Your task to perform on an android device: snooze an email in the gmail app Image 0: 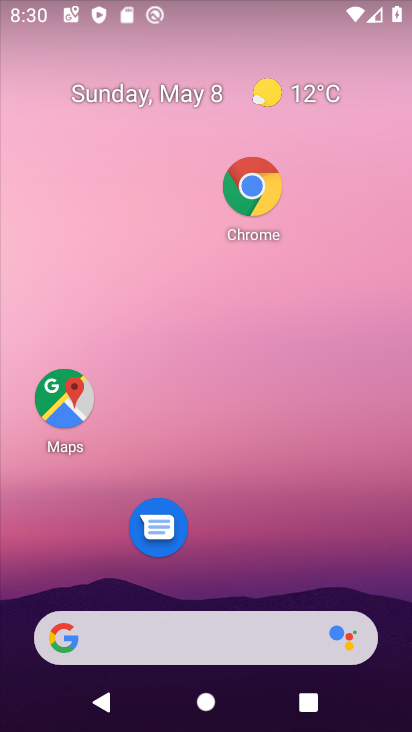
Step 0: drag from (247, 492) to (248, 265)
Your task to perform on an android device: snooze an email in the gmail app Image 1: 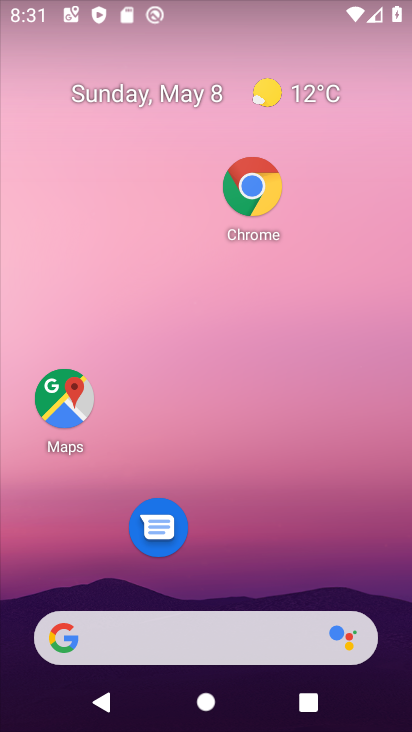
Step 1: drag from (251, 569) to (310, 272)
Your task to perform on an android device: snooze an email in the gmail app Image 2: 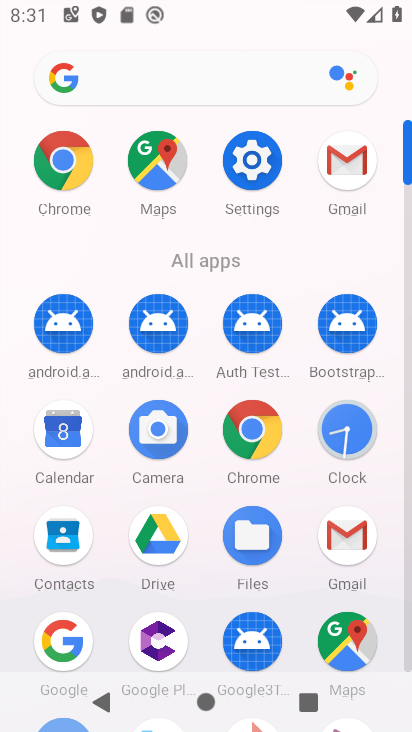
Step 2: click (338, 157)
Your task to perform on an android device: snooze an email in the gmail app Image 3: 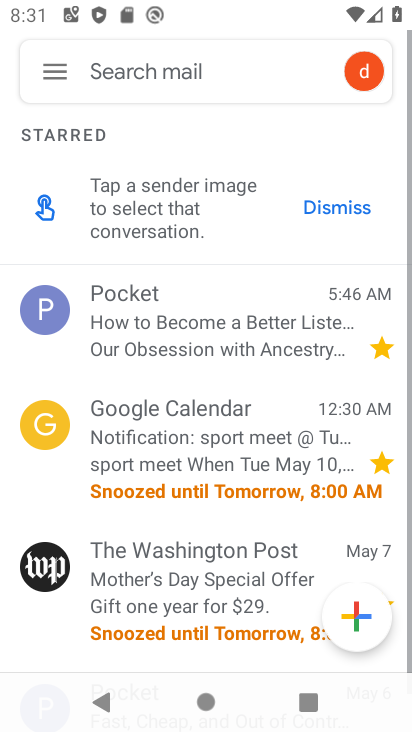
Step 3: click (54, 65)
Your task to perform on an android device: snooze an email in the gmail app Image 4: 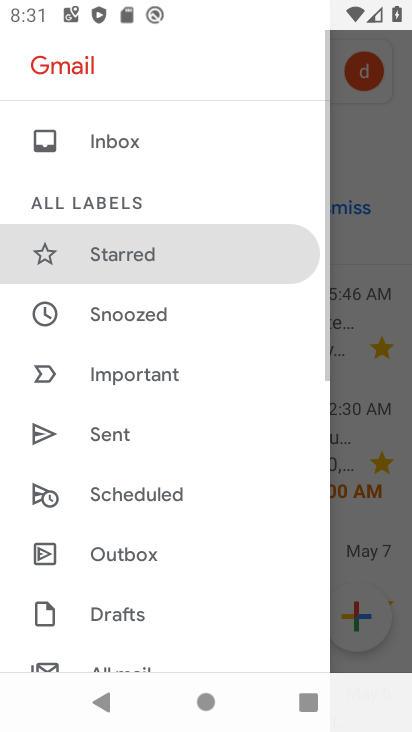
Step 4: click (150, 318)
Your task to perform on an android device: snooze an email in the gmail app Image 5: 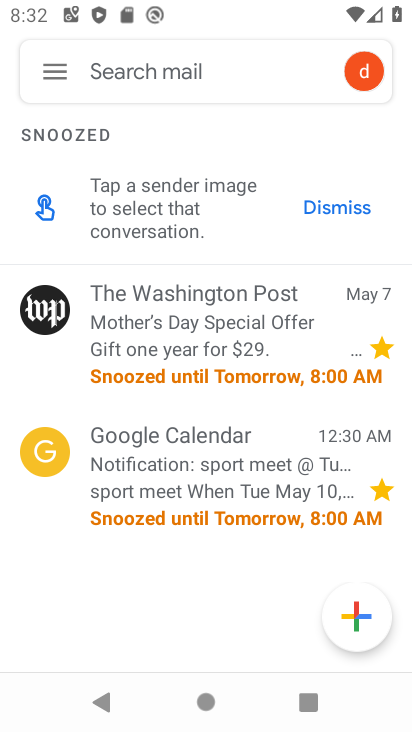
Step 5: task complete